Your task to perform on an android device: open device folders in google photos Image 0: 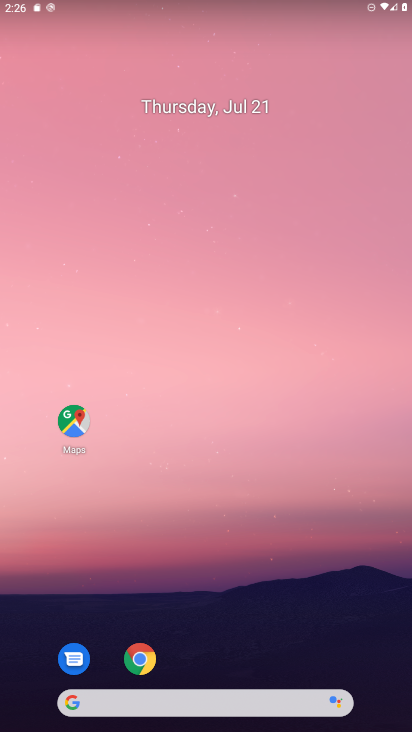
Step 0: drag from (12, 565) to (276, 7)
Your task to perform on an android device: open device folders in google photos Image 1: 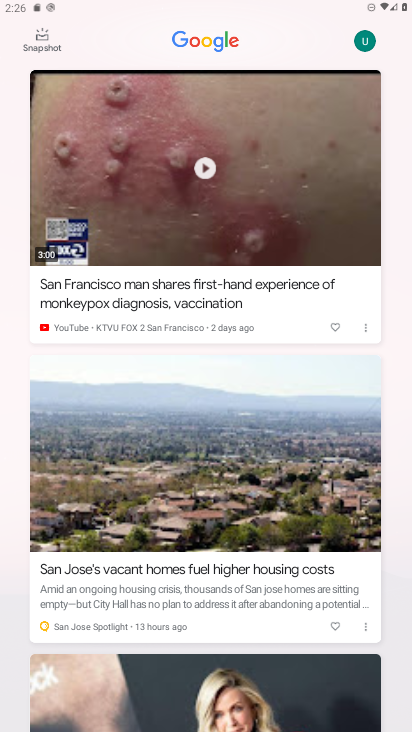
Step 1: press home button
Your task to perform on an android device: open device folders in google photos Image 2: 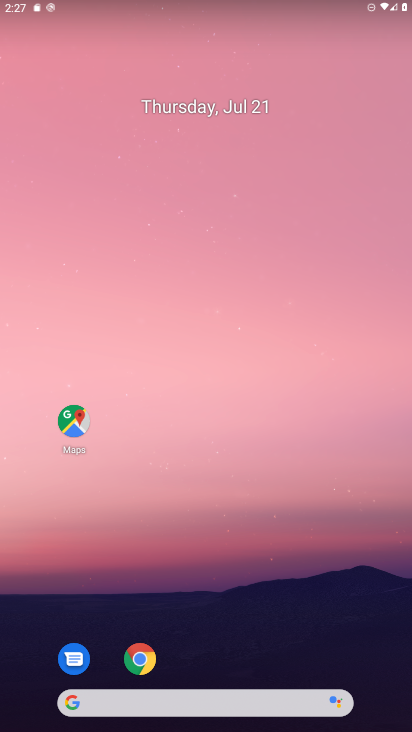
Step 2: drag from (27, 563) to (223, 143)
Your task to perform on an android device: open device folders in google photos Image 3: 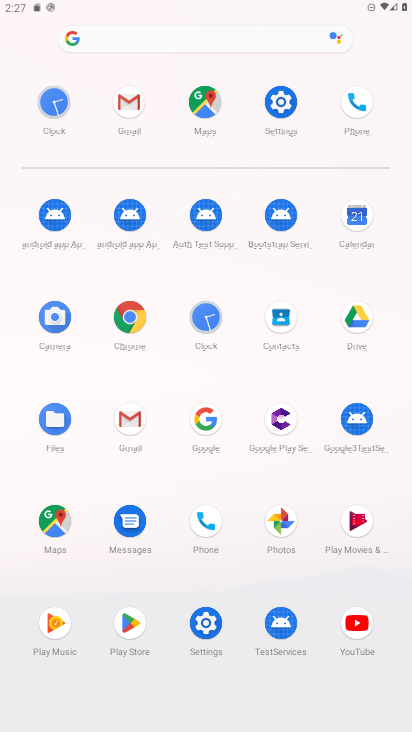
Step 3: click (277, 530)
Your task to perform on an android device: open device folders in google photos Image 4: 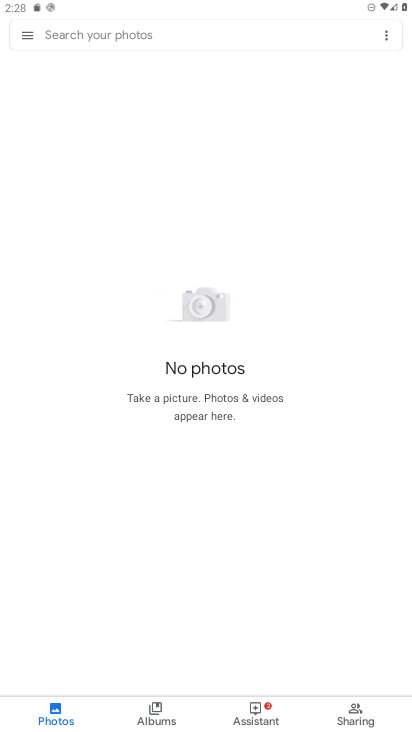
Step 4: click (31, 37)
Your task to perform on an android device: open device folders in google photos Image 5: 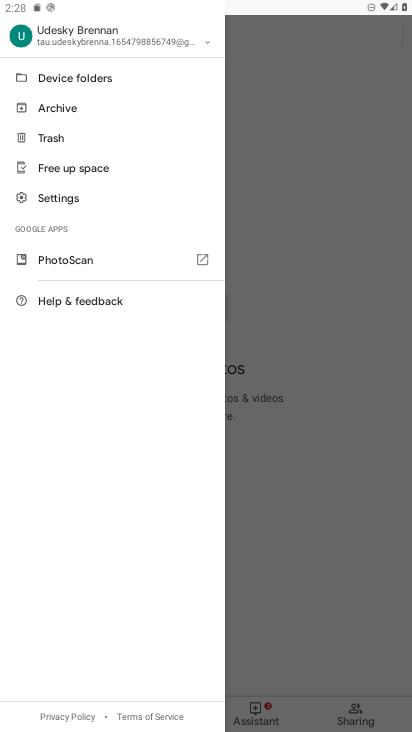
Step 5: click (38, 86)
Your task to perform on an android device: open device folders in google photos Image 6: 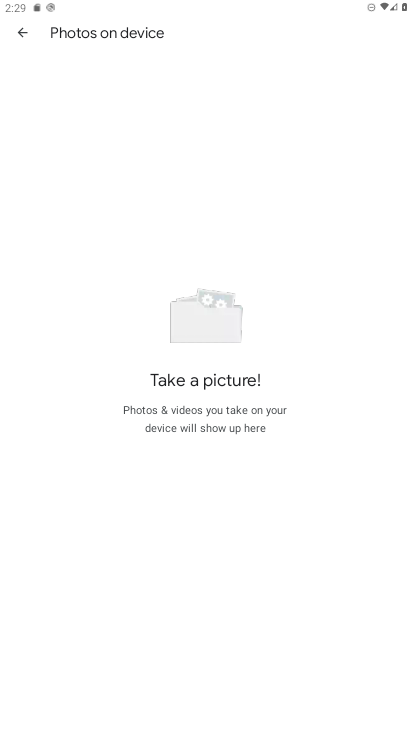
Step 6: task complete